Your task to perform on an android device: change the clock style Image 0: 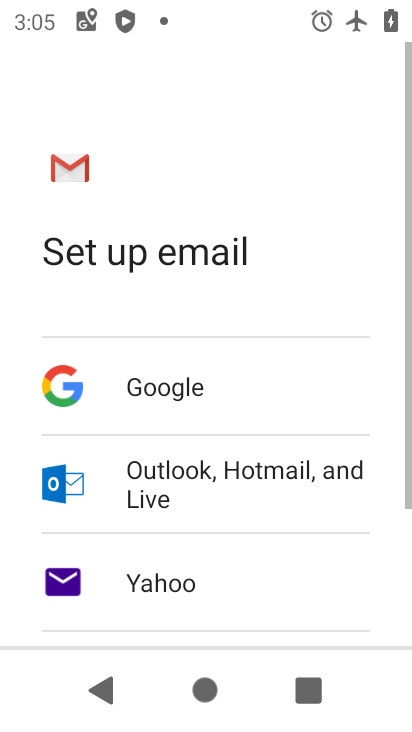
Step 0: press home button
Your task to perform on an android device: change the clock style Image 1: 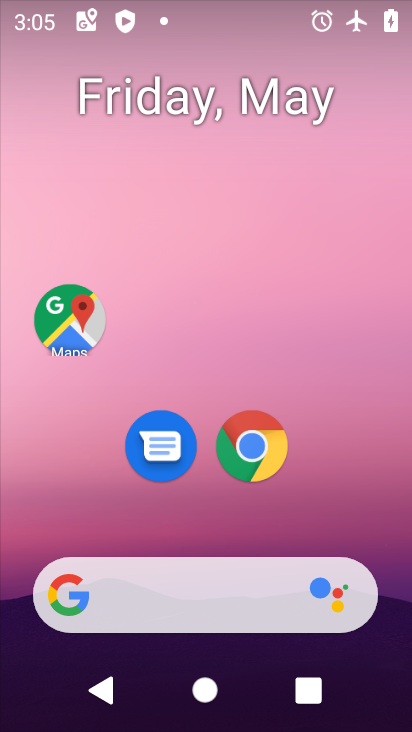
Step 1: drag from (285, 11) to (321, 419)
Your task to perform on an android device: change the clock style Image 2: 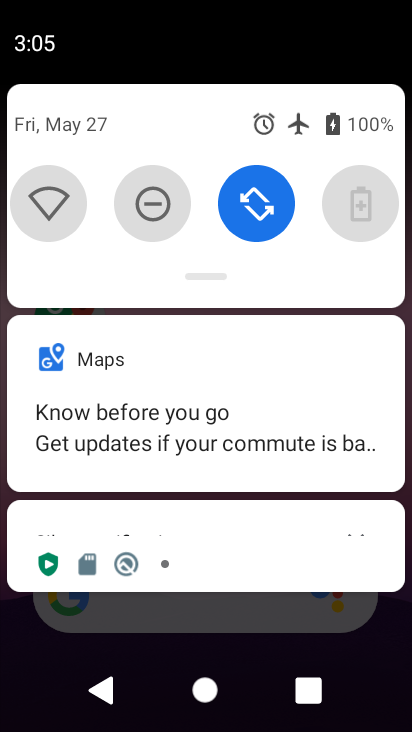
Step 2: drag from (308, 251) to (344, 586)
Your task to perform on an android device: change the clock style Image 3: 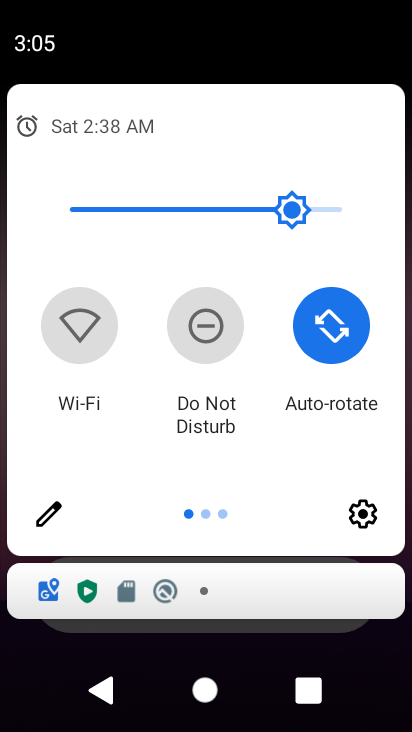
Step 3: drag from (373, 444) to (25, 458)
Your task to perform on an android device: change the clock style Image 4: 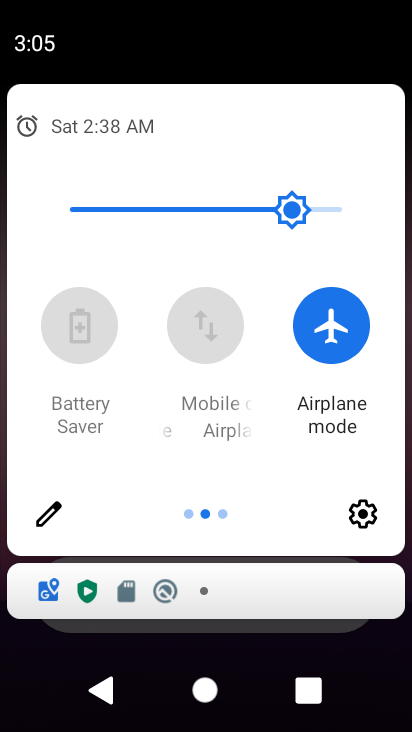
Step 4: click (332, 328)
Your task to perform on an android device: change the clock style Image 5: 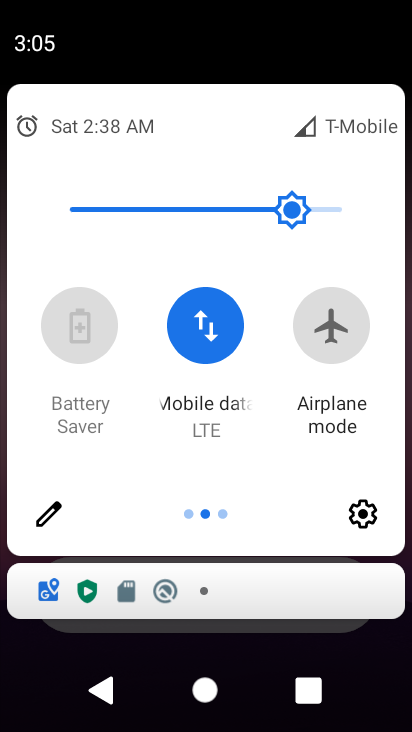
Step 5: press home button
Your task to perform on an android device: change the clock style Image 6: 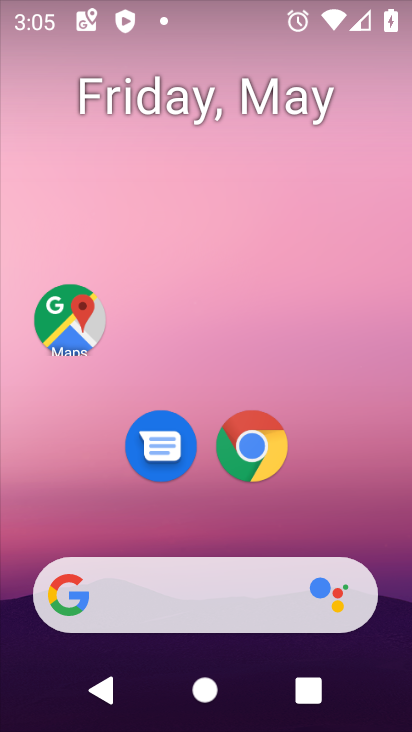
Step 6: drag from (401, 569) to (343, 119)
Your task to perform on an android device: change the clock style Image 7: 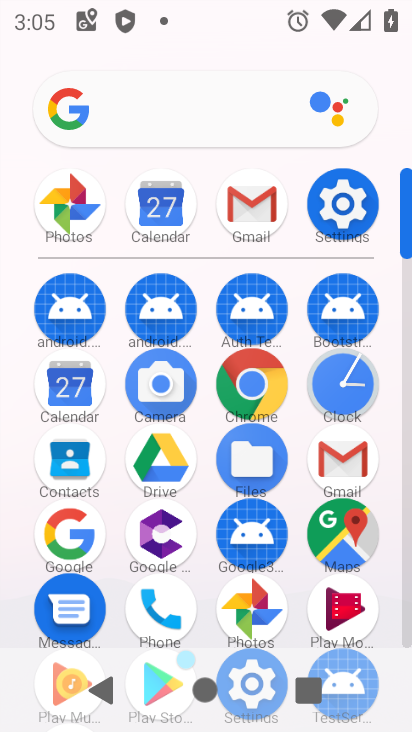
Step 7: click (354, 395)
Your task to perform on an android device: change the clock style Image 8: 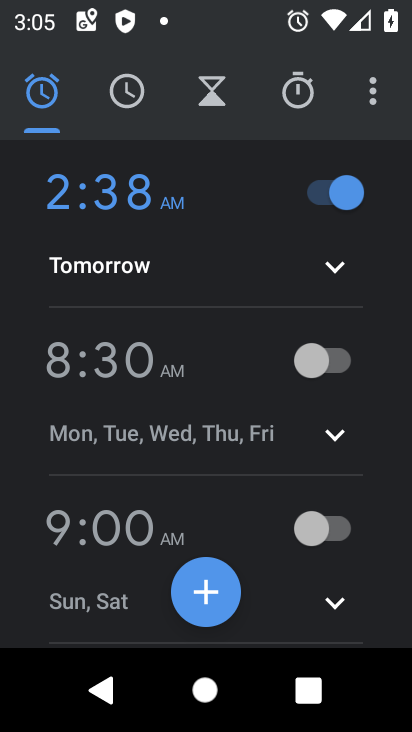
Step 8: click (355, 104)
Your task to perform on an android device: change the clock style Image 9: 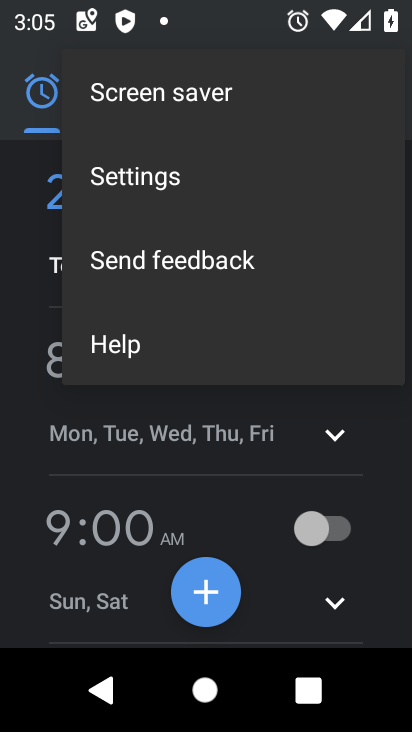
Step 9: click (219, 174)
Your task to perform on an android device: change the clock style Image 10: 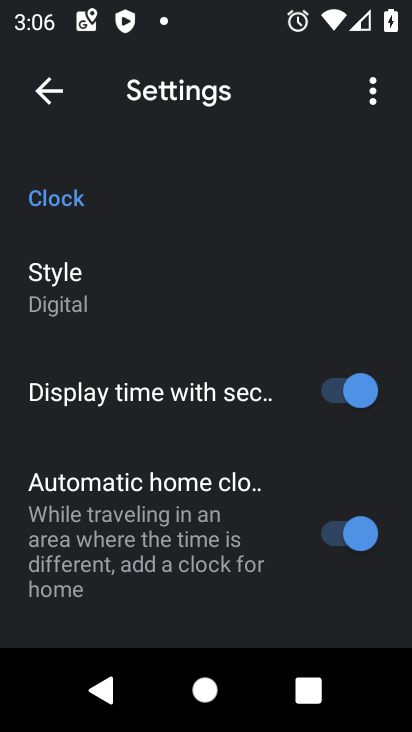
Step 10: click (187, 305)
Your task to perform on an android device: change the clock style Image 11: 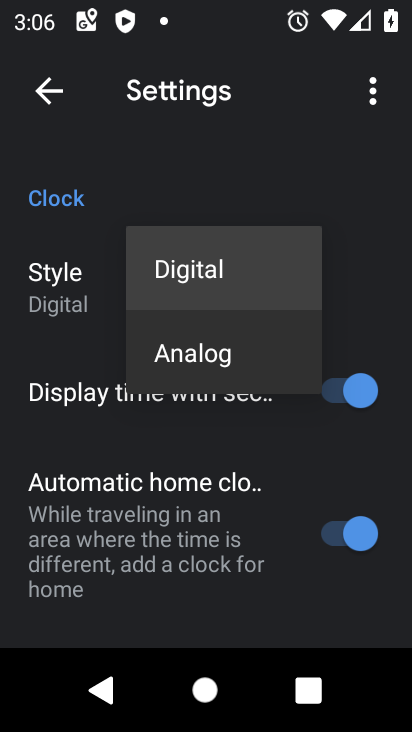
Step 11: click (198, 363)
Your task to perform on an android device: change the clock style Image 12: 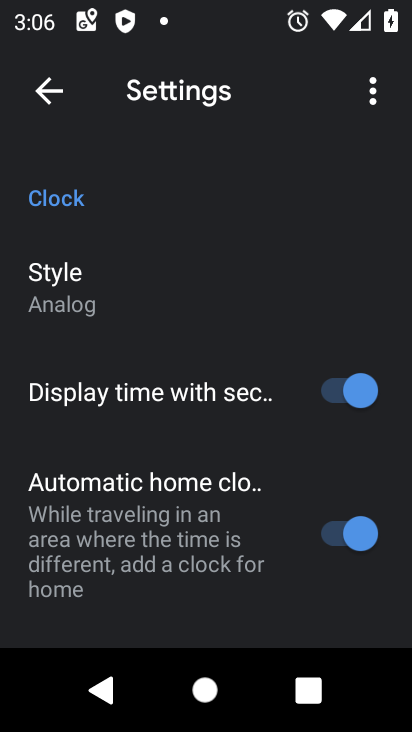
Step 12: task complete